Your task to perform on an android device: Go to privacy settings Image 0: 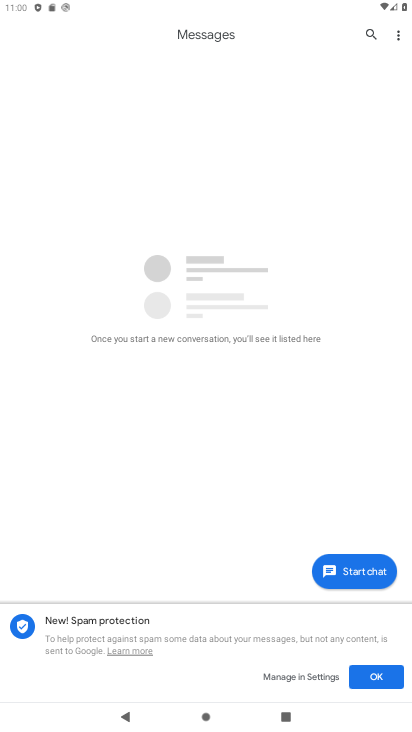
Step 0: press home button
Your task to perform on an android device: Go to privacy settings Image 1: 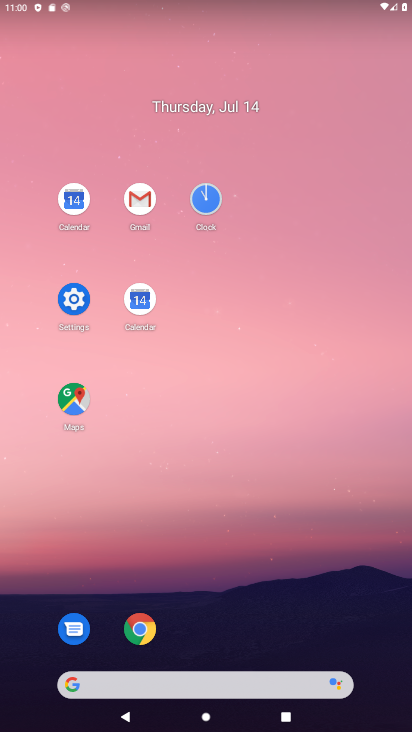
Step 1: click (75, 301)
Your task to perform on an android device: Go to privacy settings Image 2: 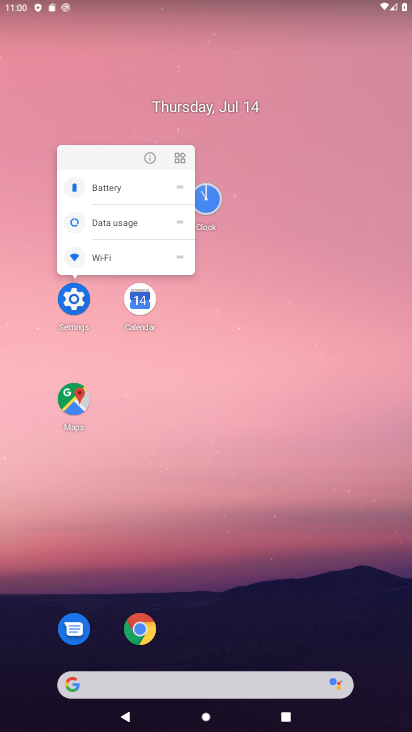
Step 2: click (75, 301)
Your task to perform on an android device: Go to privacy settings Image 3: 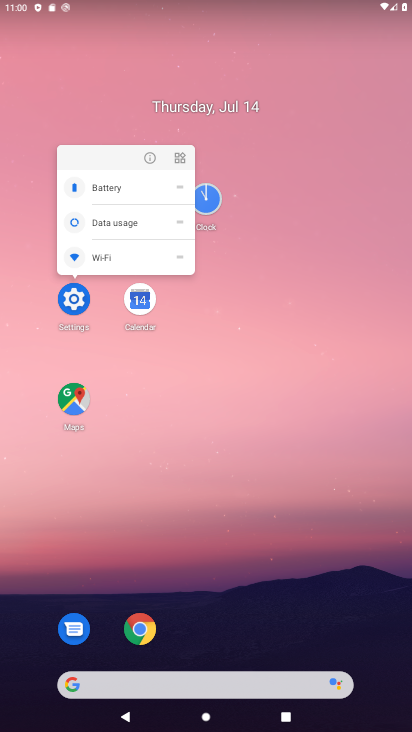
Step 3: click (75, 301)
Your task to perform on an android device: Go to privacy settings Image 4: 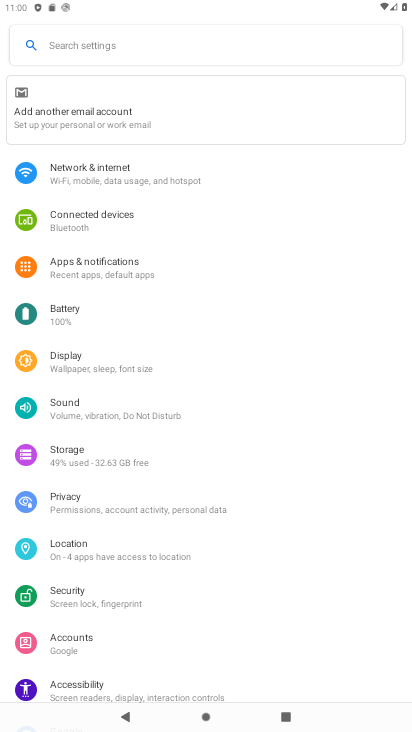
Step 4: drag from (180, 574) to (207, 322)
Your task to perform on an android device: Go to privacy settings Image 5: 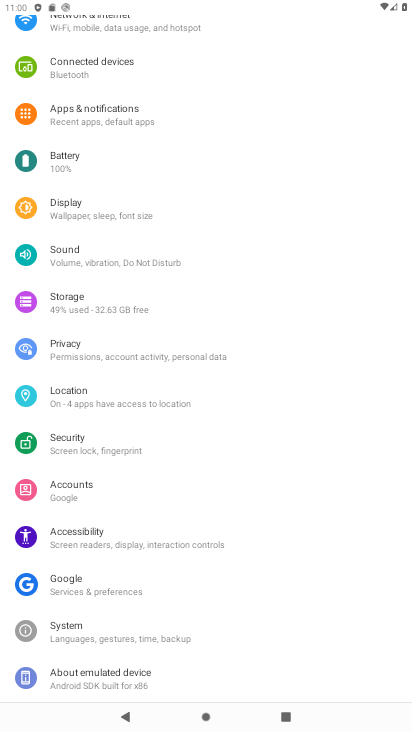
Step 5: click (189, 337)
Your task to perform on an android device: Go to privacy settings Image 6: 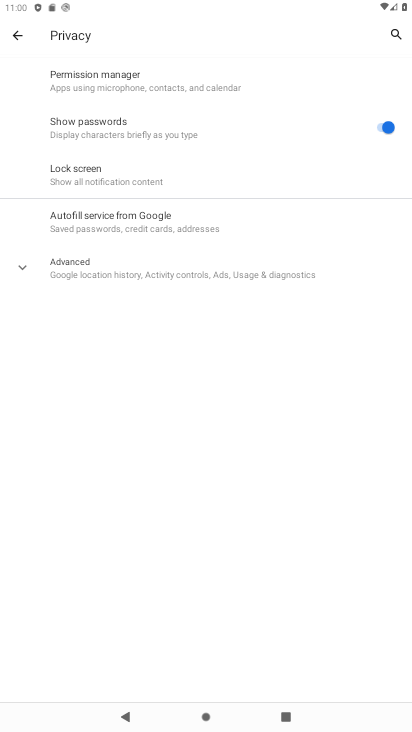
Step 6: task complete